Your task to perform on an android device: turn off priority inbox in the gmail app Image 0: 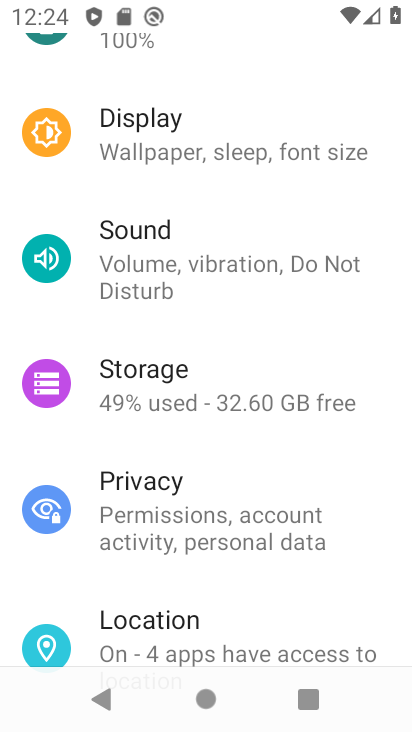
Step 0: press home button
Your task to perform on an android device: turn off priority inbox in the gmail app Image 1: 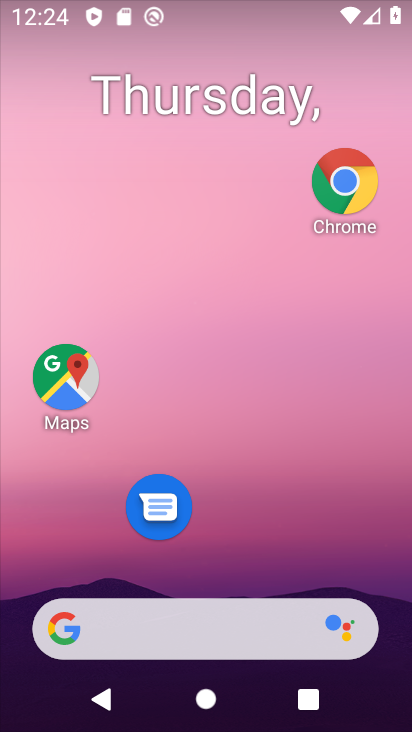
Step 1: drag from (159, 570) to (213, 105)
Your task to perform on an android device: turn off priority inbox in the gmail app Image 2: 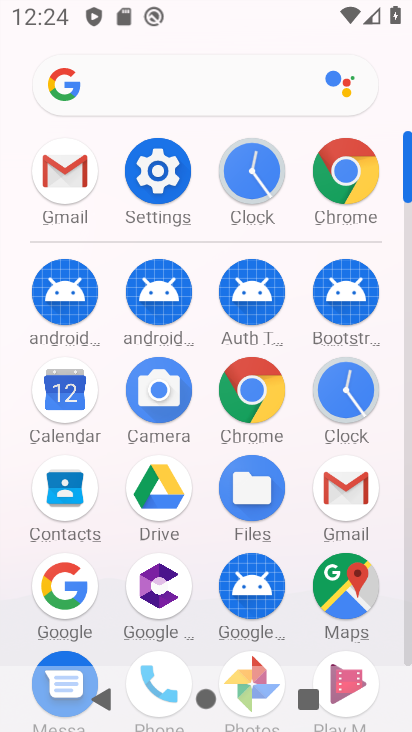
Step 2: click (77, 184)
Your task to perform on an android device: turn off priority inbox in the gmail app Image 3: 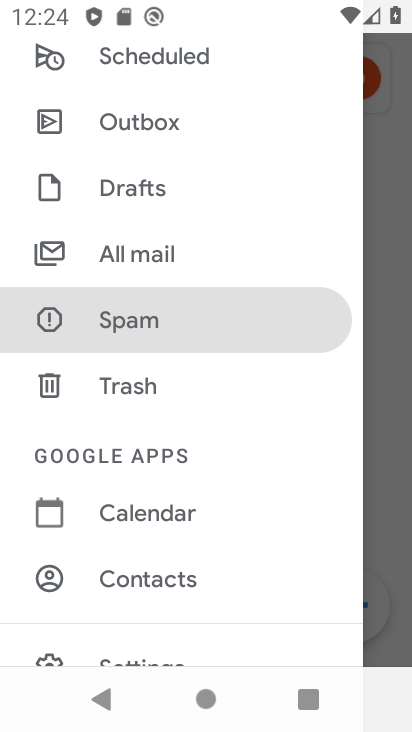
Step 3: drag from (97, 490) to (127, 208)
Your task to perform on an android device: turn off priority inbox in the gmail app Image 4: 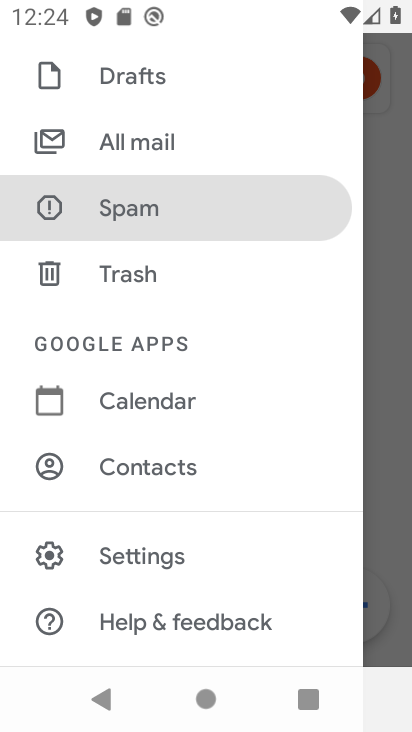
Step 4: click (128, 531)
Your task to perform on an android device: turn off priority inbox in the gmail app Image 5: 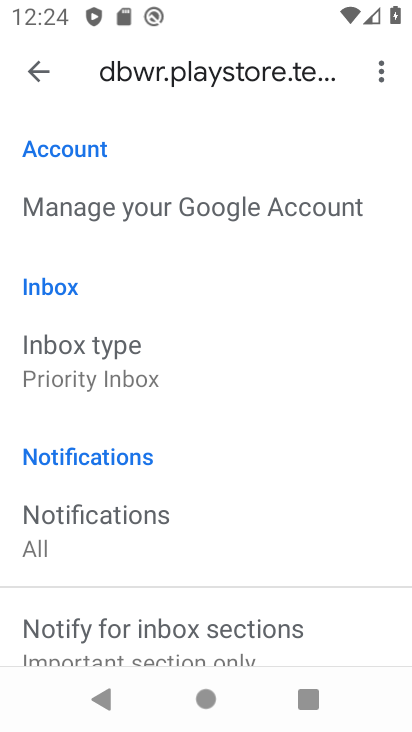
Step 5: click (140, 359)
Your task to perform on an android device: turn off priority inbox in the gmail app Image 6: 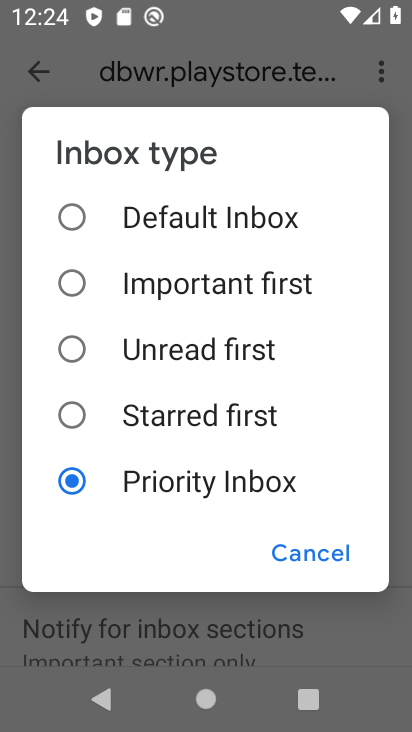
Step 6: click (96, 238)
Your task to perform on an android device: turn off priority inbox in the gmail app Image 7: 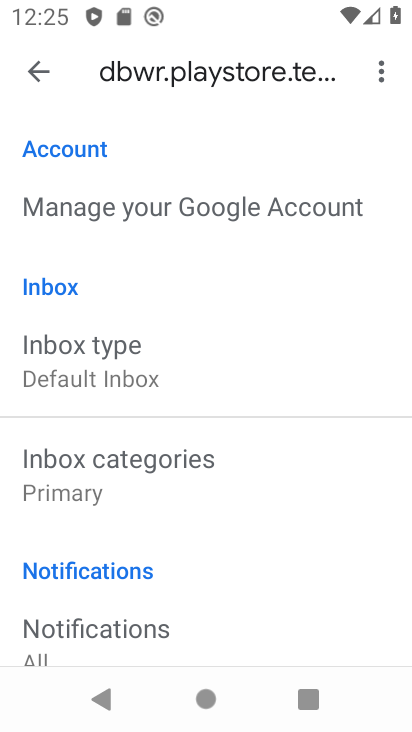
Step 7: task complete